Your task to perform on an android device: search for starred emails in the gmail app Image 0: 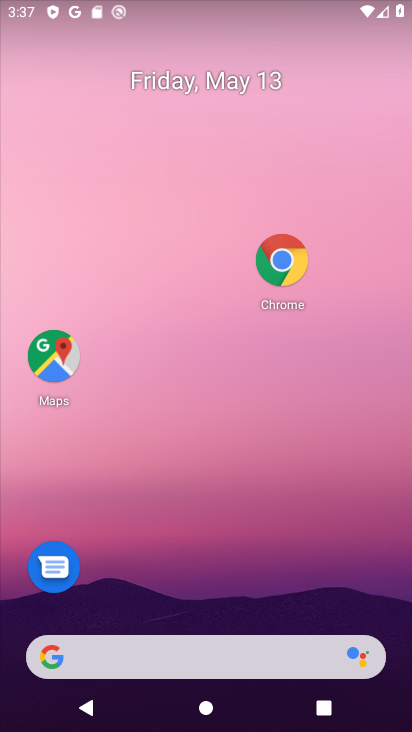
Step 0: drag from (229, 592) to (119, 14)
Your task to perform on an android device: search for starred emails in the gmail app Image 1: 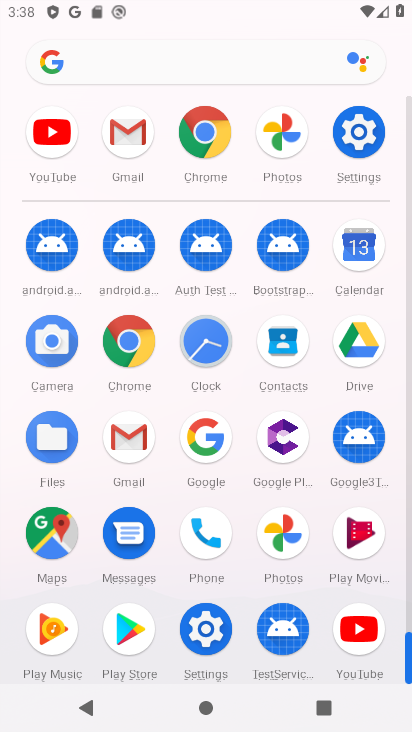
Step 1: click (354, 256)
Your task to perform on an android device: search for starred emails in the gmail app Image 2: 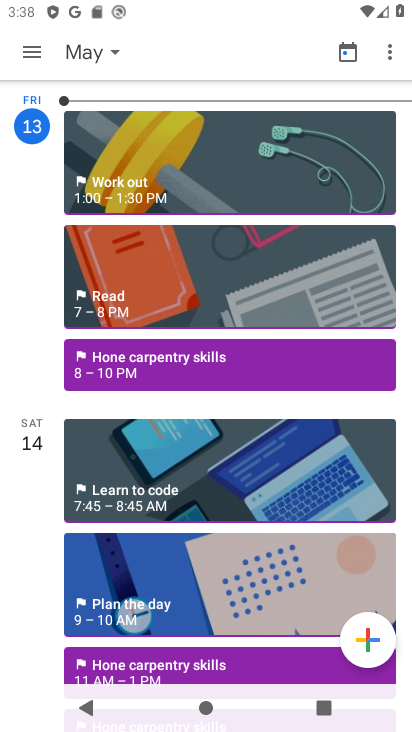
Step 2: press back button
Your task to perform on an android device: search for starred emails in the gmail app Image 3: 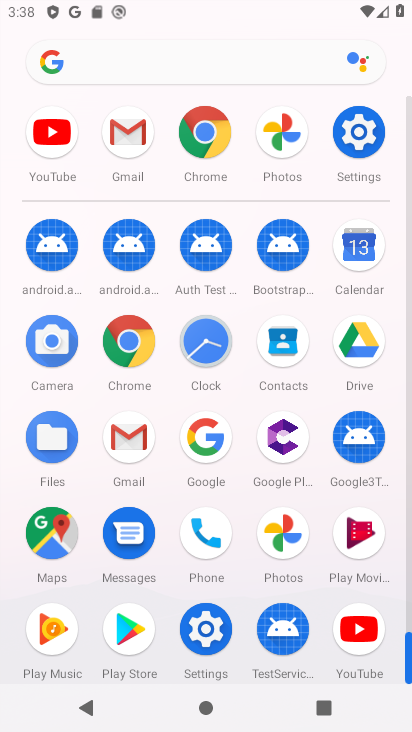
Step 3: click (144, 437)
Your task to perform on an android device: search for starred emails in the gmail app Image 4: 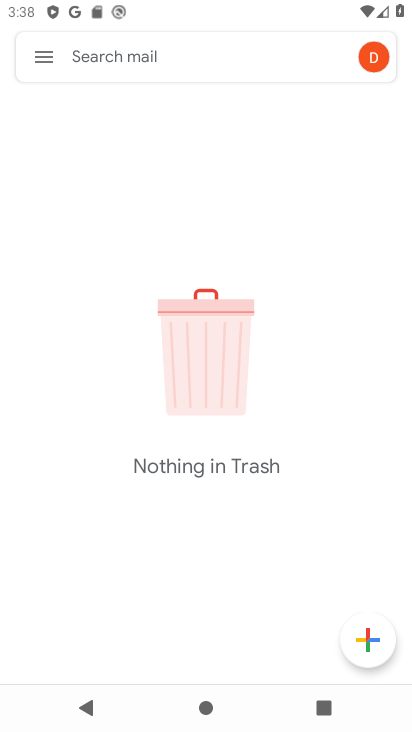
Step 4: click (51, 51)
Your task to perform on an android device: search for starred emails in the gmail app Image 5: 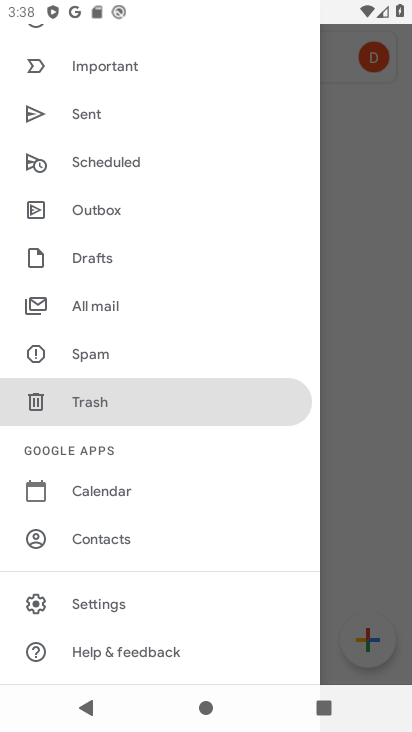
Step 5: drag from (118, 115) to (147, 629)
Your task to perform on an android device: search for starred emails in the gmail app Image 6: 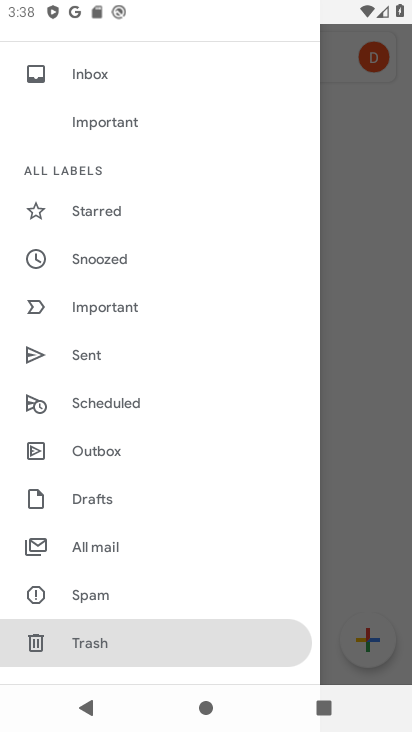
Step 6: click (96, 212)
Your task to perform on an android device: search for starred emails in the gmail app Image 7: 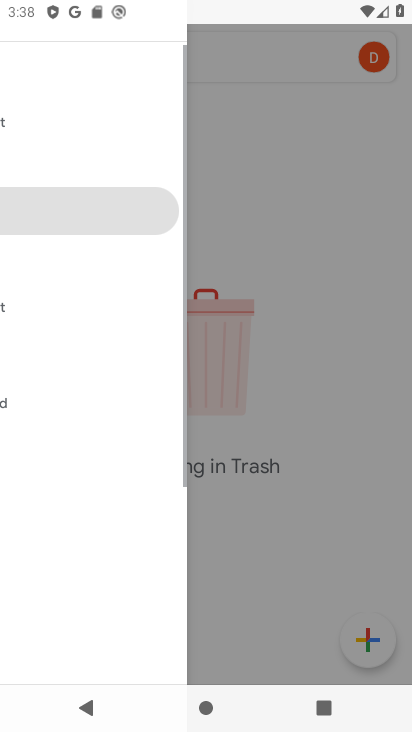
Step 7: click (96, 212)
Your task to perform on an android device: search for starred emails in the gmail app Image 8: 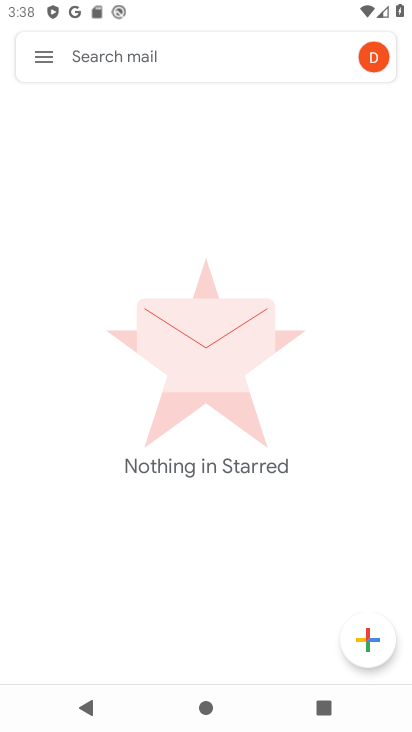
Step 8: task complete